Your task to perform on an android device: Turn on the flashlight Image 0: 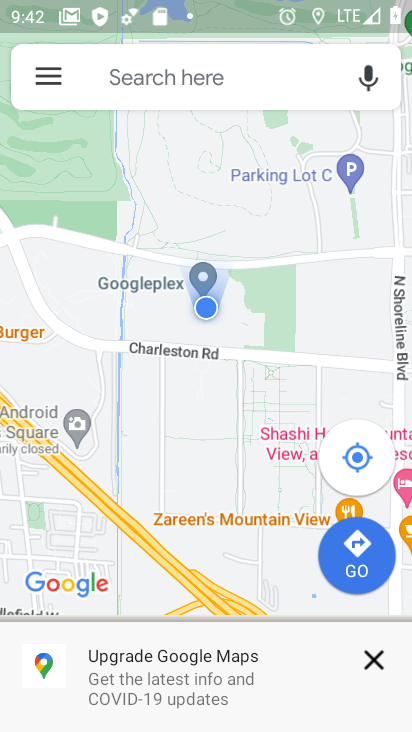
Step 0: press home button
Your task to perform on an android device: Turn on the flashlight Image 1: 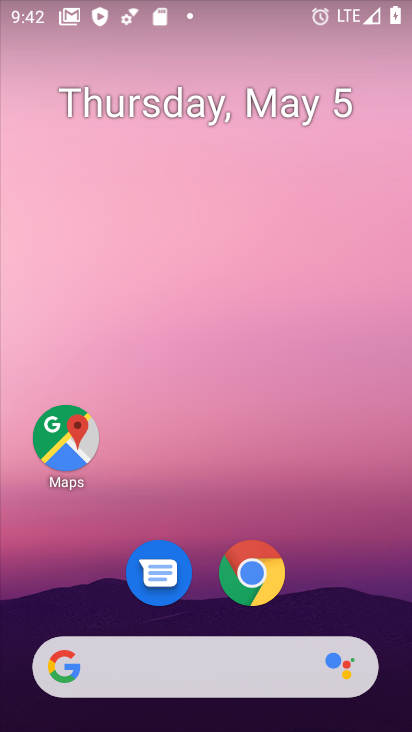
Step 1: drag from (220, 506) to (304, 17)
Your task to perform on an android device: Turn on the flashlight Image 2: 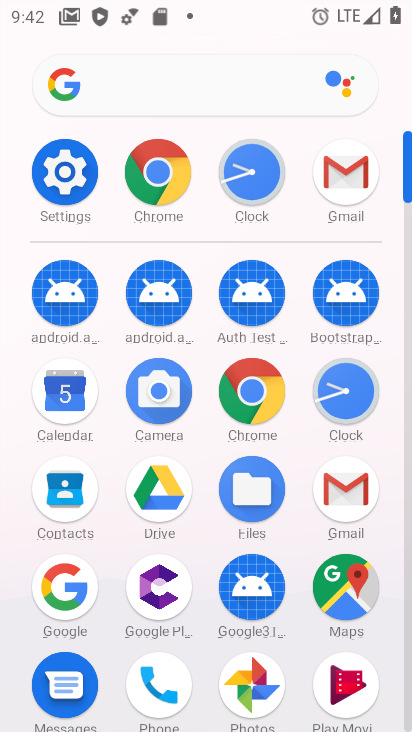
Step 2: click (67, 179)
Your task to perform on an android device: Turn on the flashlight Image 3: 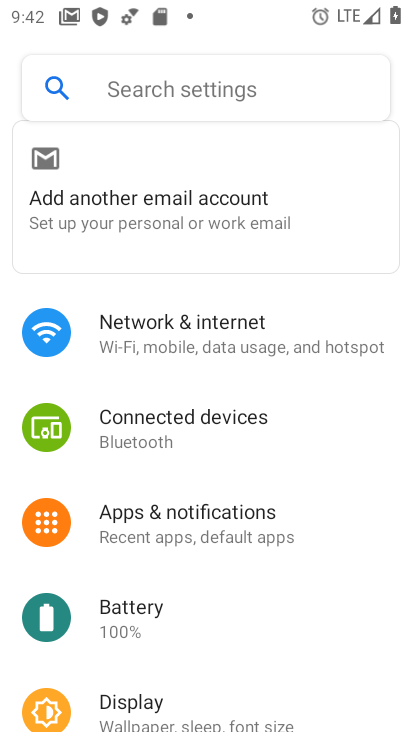
Step 3: click (154, 89)
Your task to perform on an android device: Turn on the flashlight Image 4: 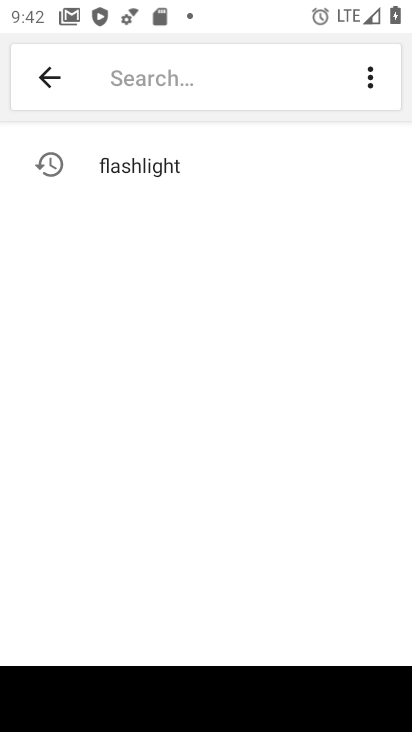
Step 4: type "flash"
Your task to perform on an android device: Turn on the flashlight Image 5: 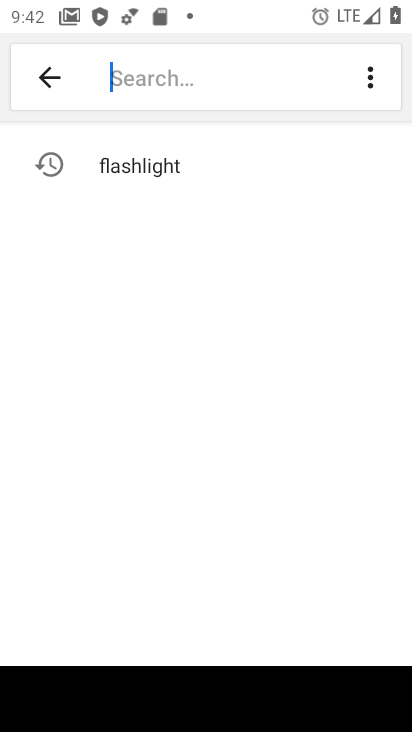
Step 5: click (180, 191)
Your task to perform on an android device: Turn on the flashlight Image 6: 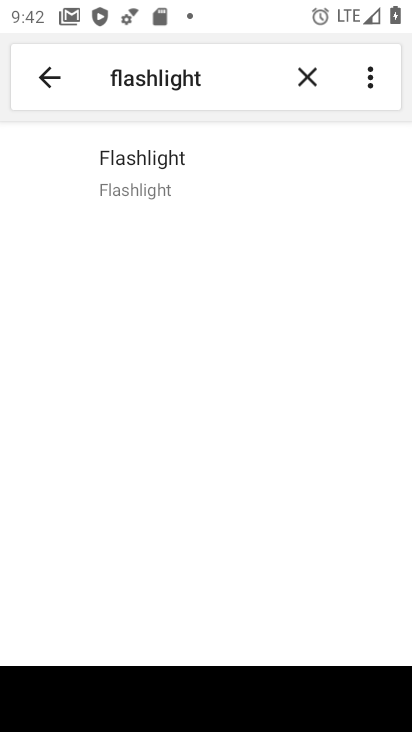
Step 6: click (167, 166)
Your task to perform on an android device: Turn on the flashlight Image 7: 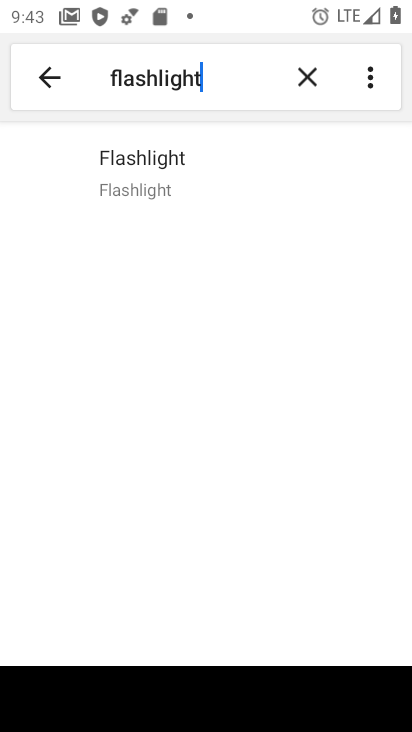
Step 7: task complete